Your task to perform on an android device: check android version Image 0: 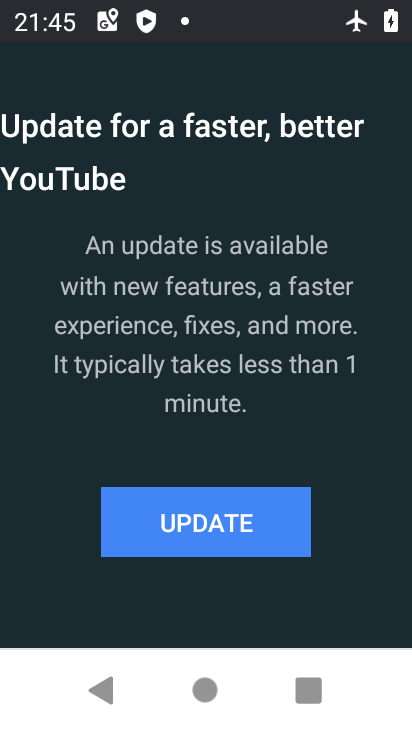
Step 0: press home button
Your task to perform on an android device: check android version Image 1: 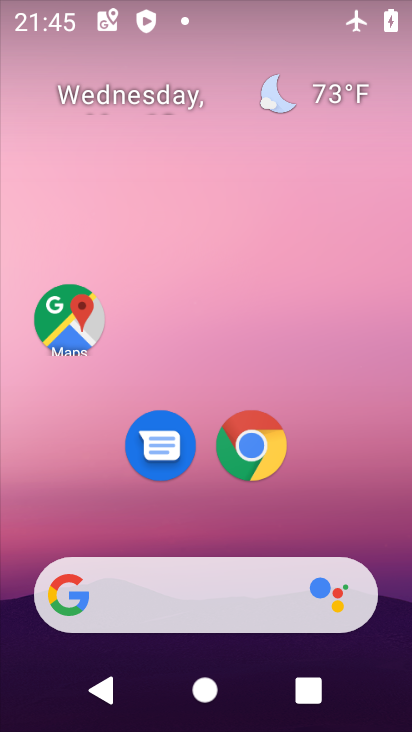
Step 1: drag from (297, 533) to (371, 232)
Your task to perform on an android device: check android version Image 2: 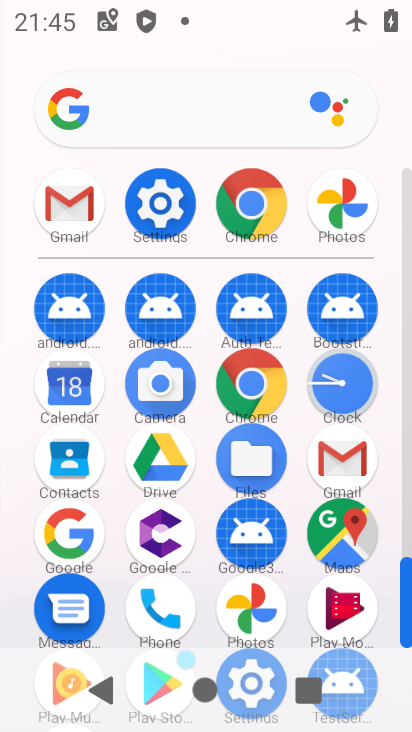
Step 2: click (141, 197)
Your task to perform on an android device: check android version Image 3: 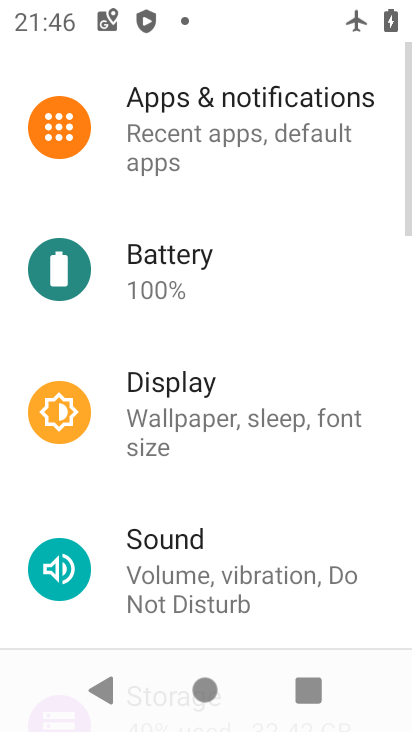
Step 3: drag from (224, 597) to (294, 125)
Your task to perform on an android device: check android version Image 4: 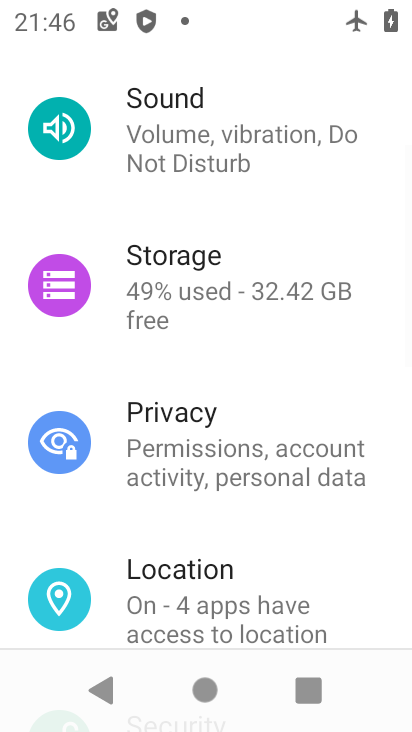
Step 4: drag from (240, 594) to (286, 122)
Your task to perform on an android device: check android version Image 5: 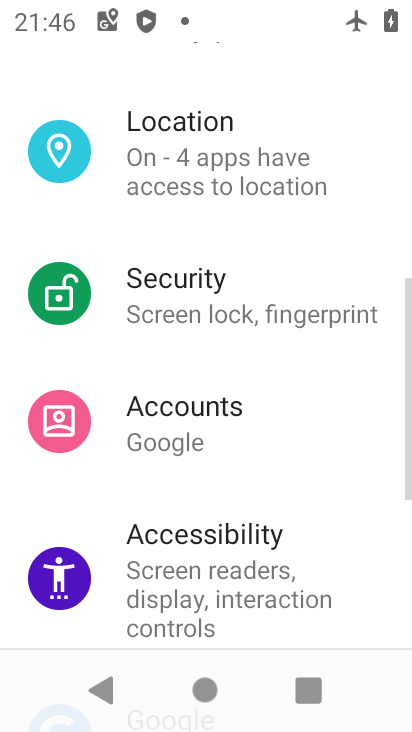
Step 5: drag from (208, 525) to (329, 116)
Your task to perform on an android device: check android version Image 6: 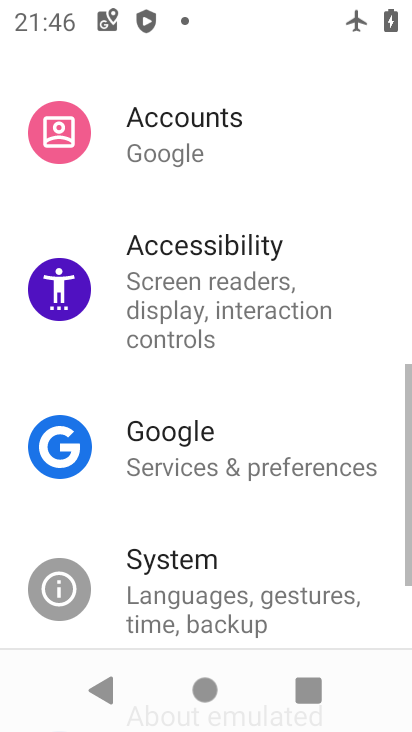
Step 6: drag from (207, 553) to (300, 216)
Your task to perform on an android device: check android version Image 7: 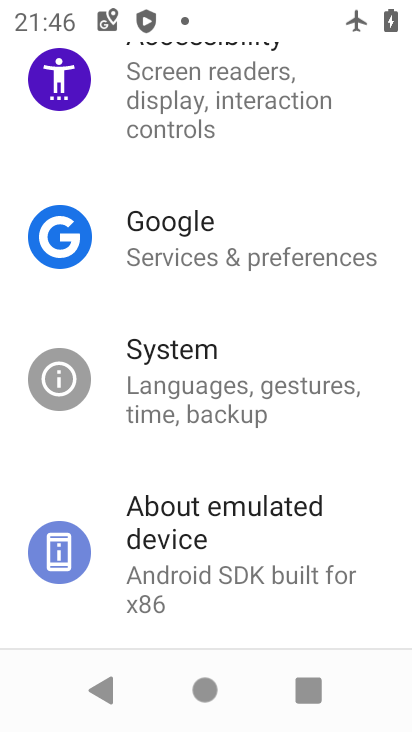
Step 7: click (207, 560)
Your task to perform on an android device: check android version Image 8: 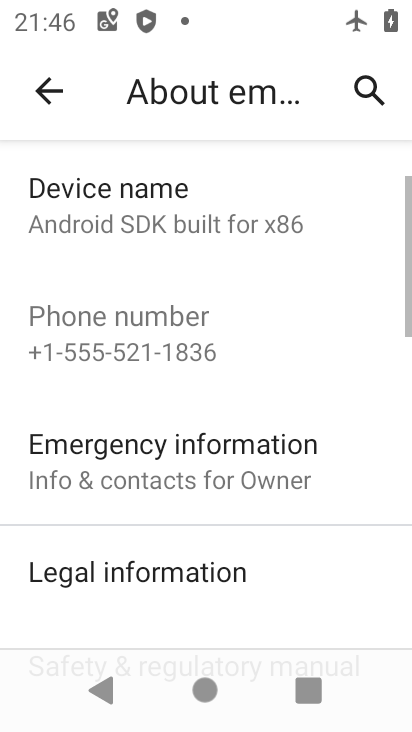
Step 8: drag from (199, 573) to (280, 183)
Your task to perform on an android device: check android version Image 9: 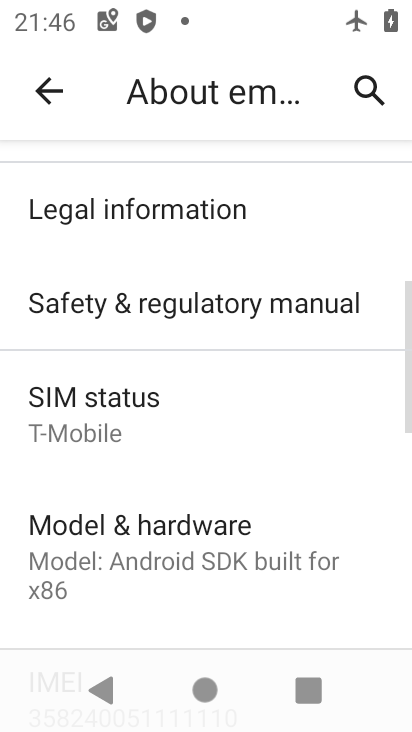
Step 9: drag from (141, 481) to (278, 153)
Your task to perform on an android device: check android version Image 10: 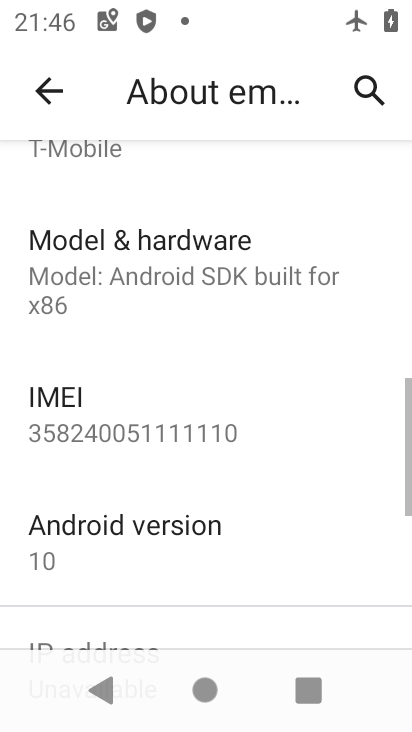
Step 10: click (161, 556)
Your task to perform on an android device: check android version Image 11: 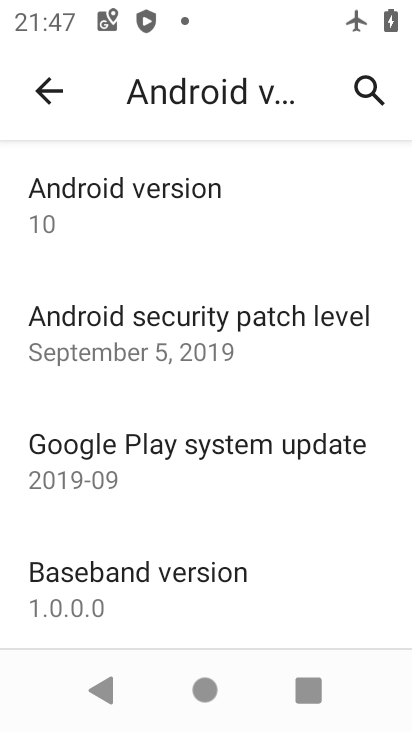
Step 11: task complete